Your task to perform on an android device: check data usage Image 0: 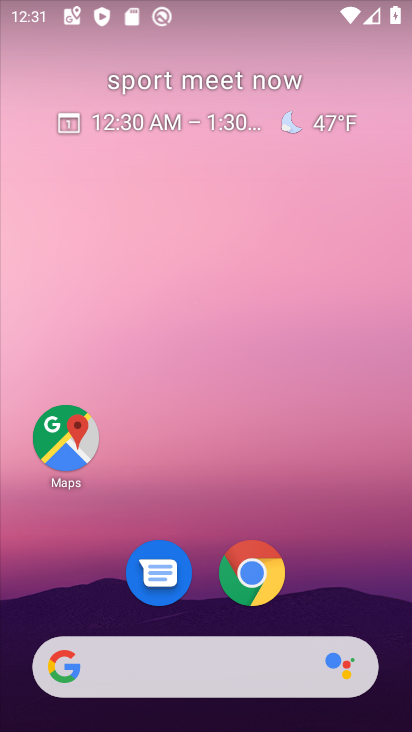
Step 0: drag from (222, 620) to (229, 175)
Your task to perform on an android device: check data usage Image 1: 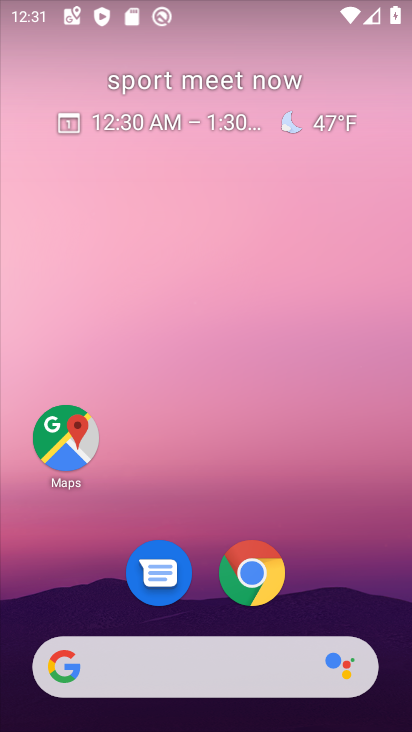
Step 1: drag from (203, 616) to (197, 193)
Your task to perform on an android device: check data usage Image 2: 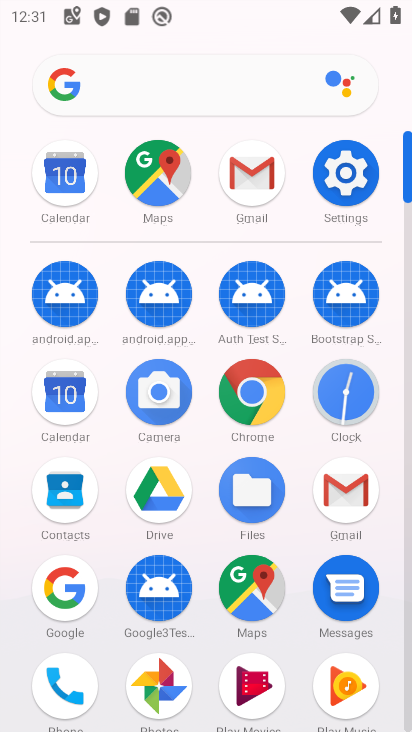
Step 2: click (343, 176)
Your task to perform on an android device: check data usage Image 3: 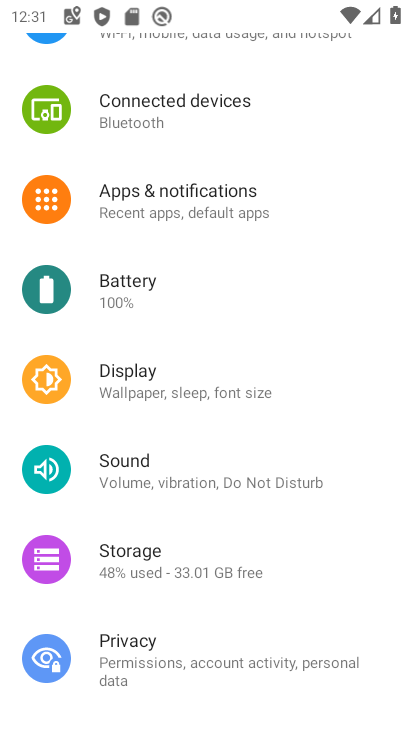
Step 3: drag from (228, 171) to (256, 722)
Your task to perform on an android device: check data usage Image 4: 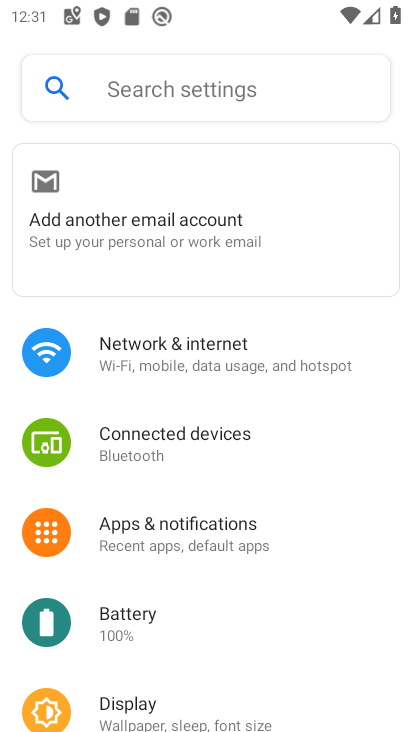
Step 4: click (137, 356)
Your task to perform on an android device: check data usage Image 5: 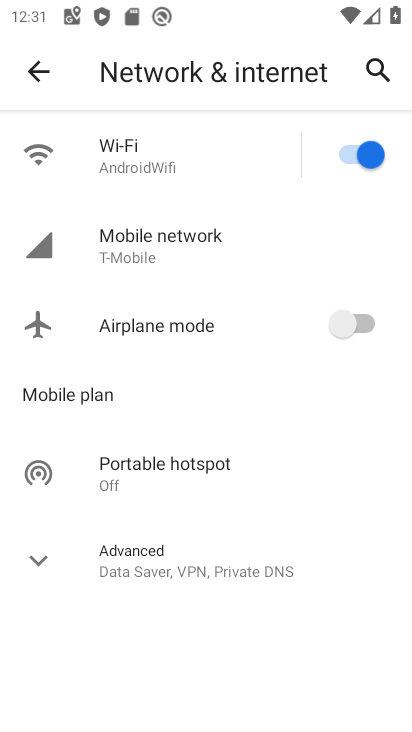
Step 5: click (231, 252)
Your task to perform on an android device: check data usage Image 6: 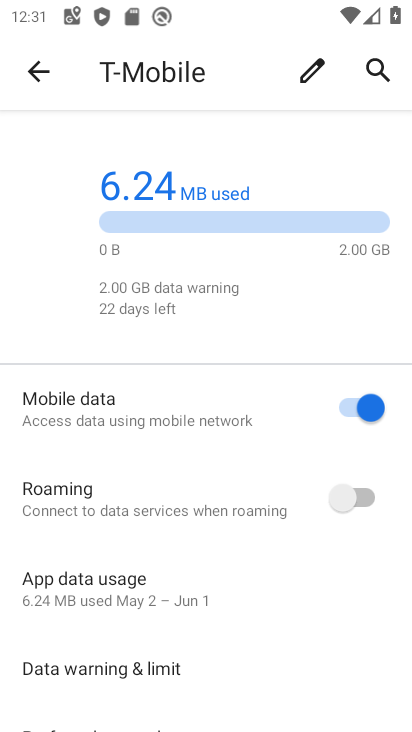
Step 6: drag from (201, 636) to (255, 303)
Your task to perform on an android device: check data usage Image 7: 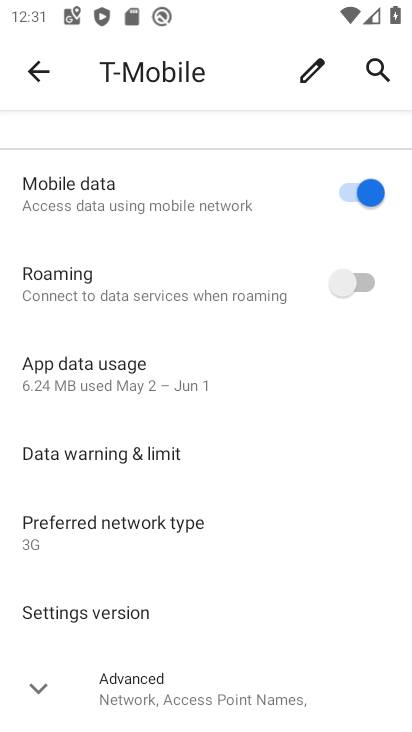
Step 7: drag from (217, 302) to (273, 715)
Your task to perform on an android device: check data usage Image 8: 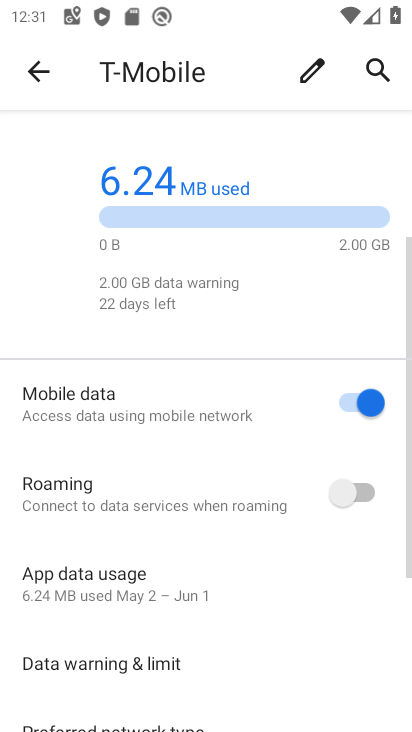
Step 8: click (207, 250)
Your task to perform on an android device: check data usage Image 9: 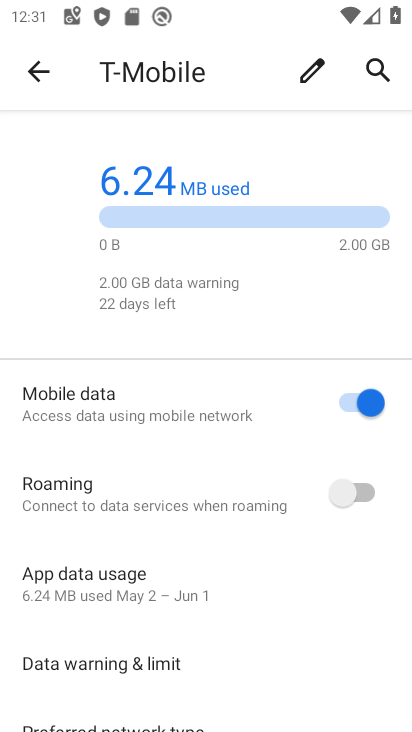
Step 9: task complete